Your task to perform on an android device: What's the weather today? Image 0: 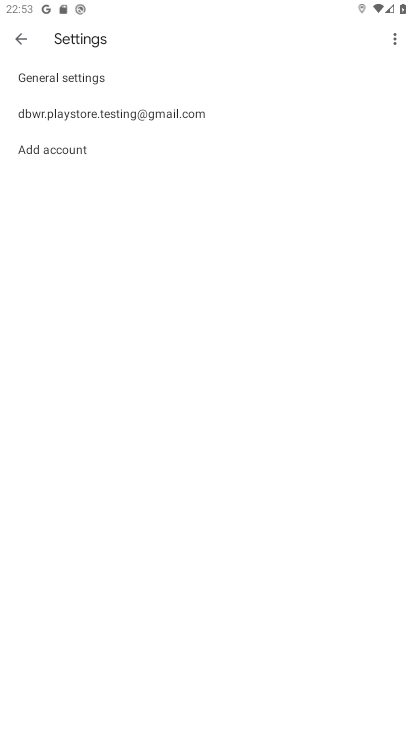
Step 0: press home button
Your task to perform on an android device: What's the weather today? Image 1: 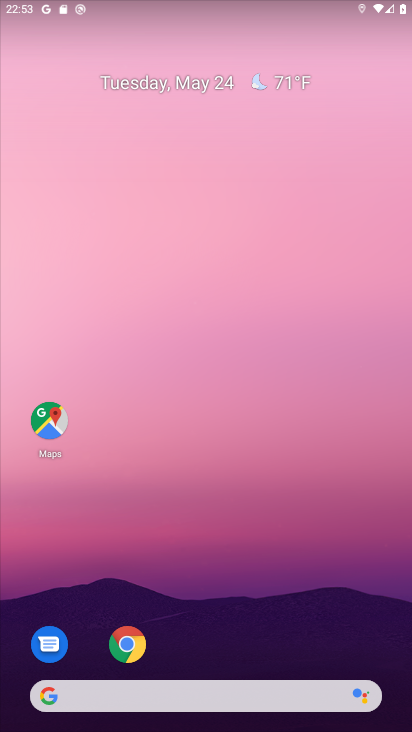
Step 1: click (192, 700)
Your task to perform on an android device: What's the weather today? Image 2: 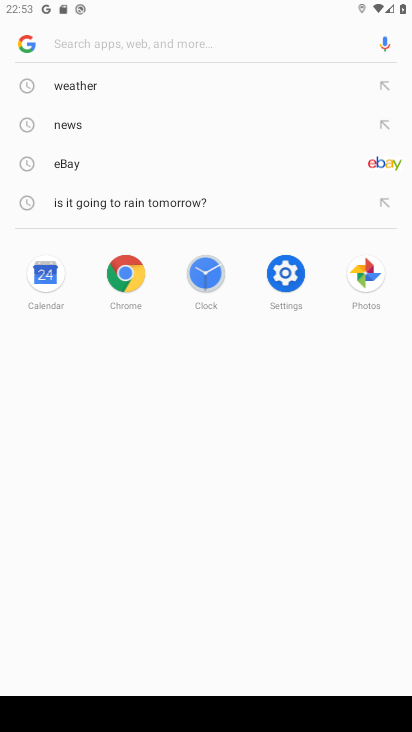
Step 2: click (75, 84)
Your task to perform on an android device: What's the weather today? Image 3: 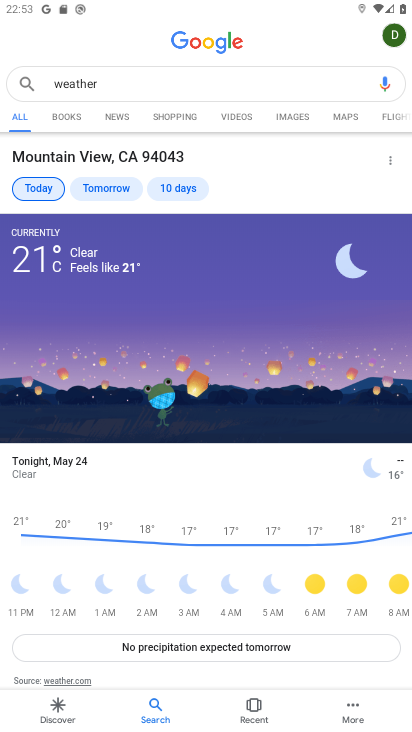
Step 3: task complete